Your task to perform on an android device: Open the map Image 0: 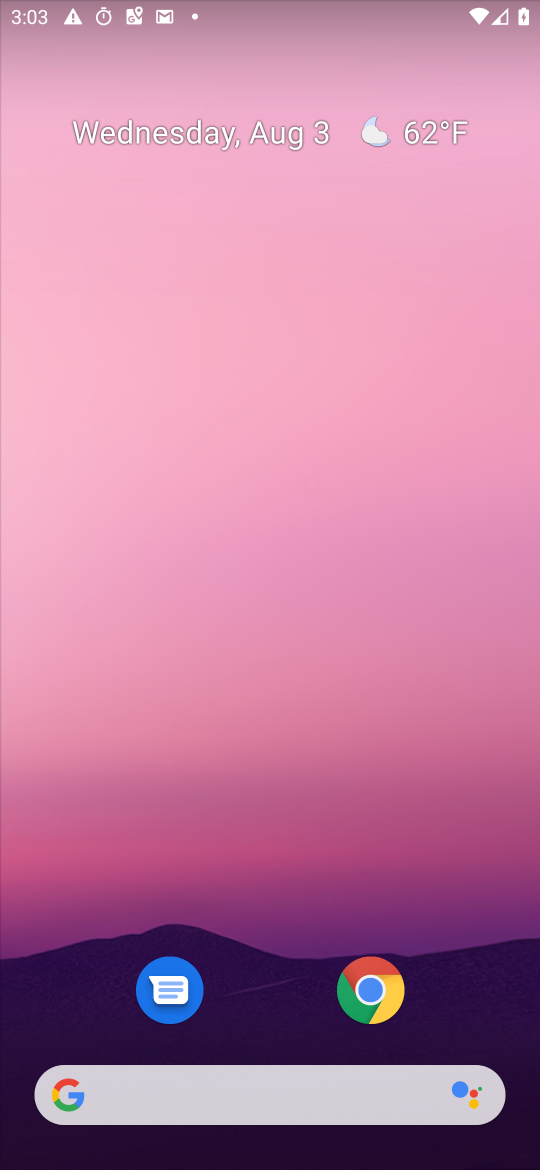
Step 0: drag from (254, 1057) to (254, 272)
Your task to perform on an android device: Open the map Image 1: 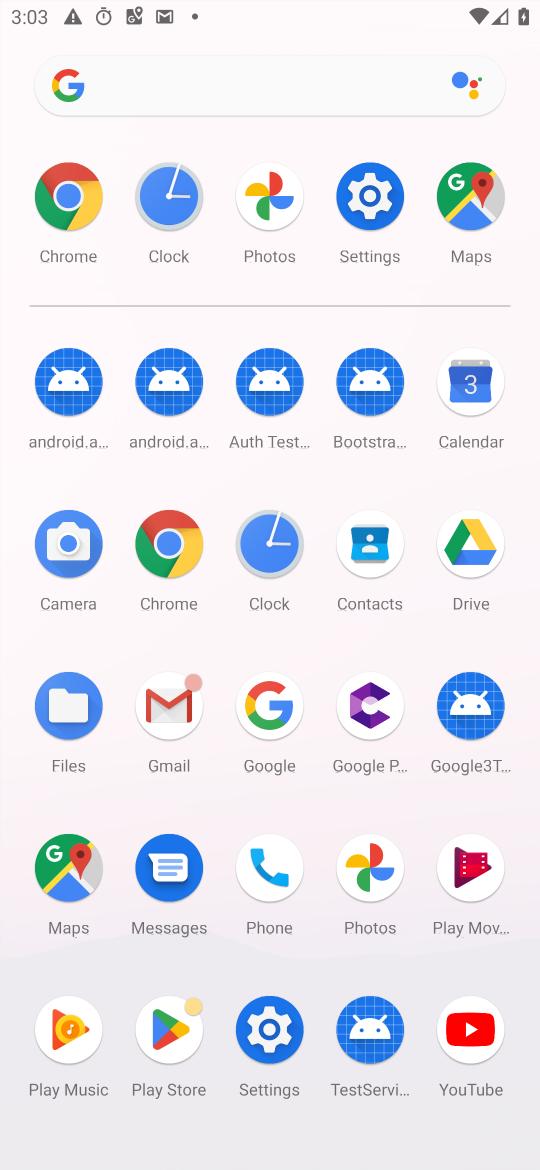
Step 1: click (68, 877)
Your task to perform on an android device: Open the map Image 2: 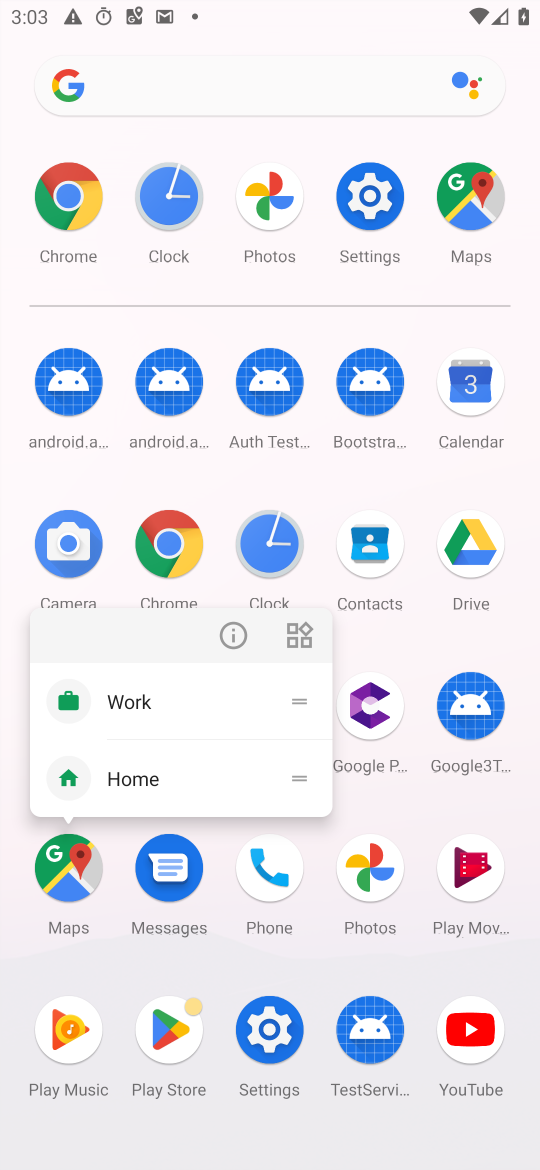
Step 2: click (68, 877)
Your task to perform on an android device: Open the map Image 3: 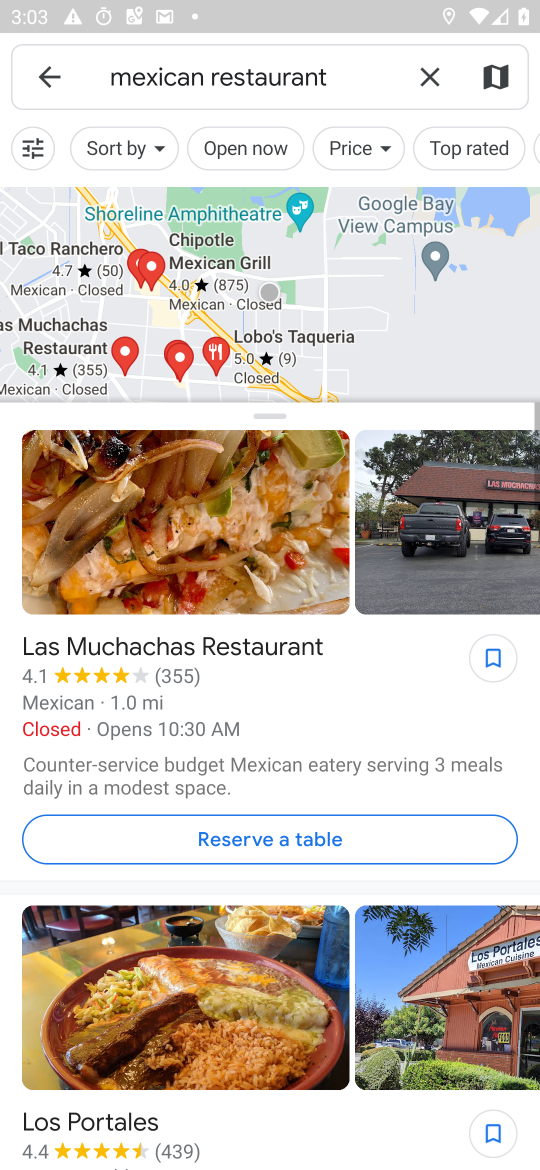
Step 3: drag from (427, 61) to (509, 61)
Your task to perform on an android device: Open the map Image 4: 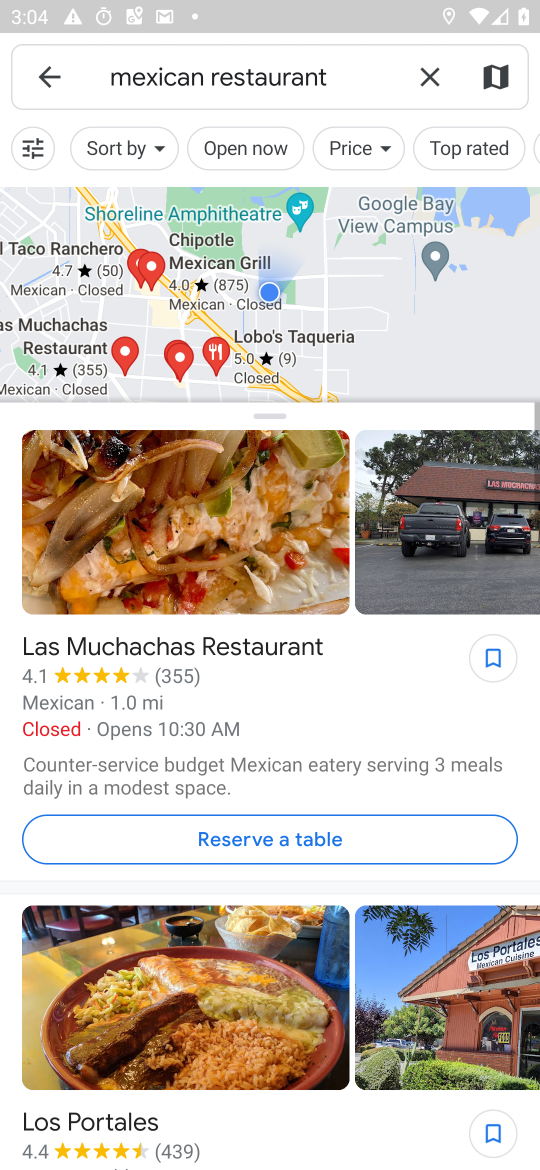
Step 4: click (435, 81)
Your task to perform on an android device: Open the map Image 5: 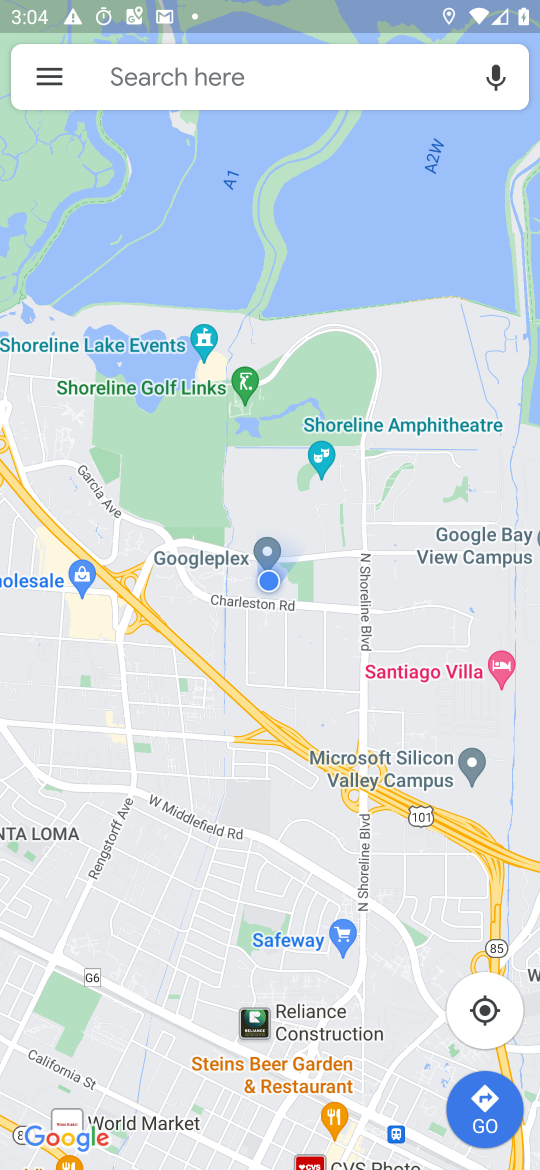
Step 5: task complete